Your task to perform on an android device: open app "Truecaller" (install if not already installed) Image 0: 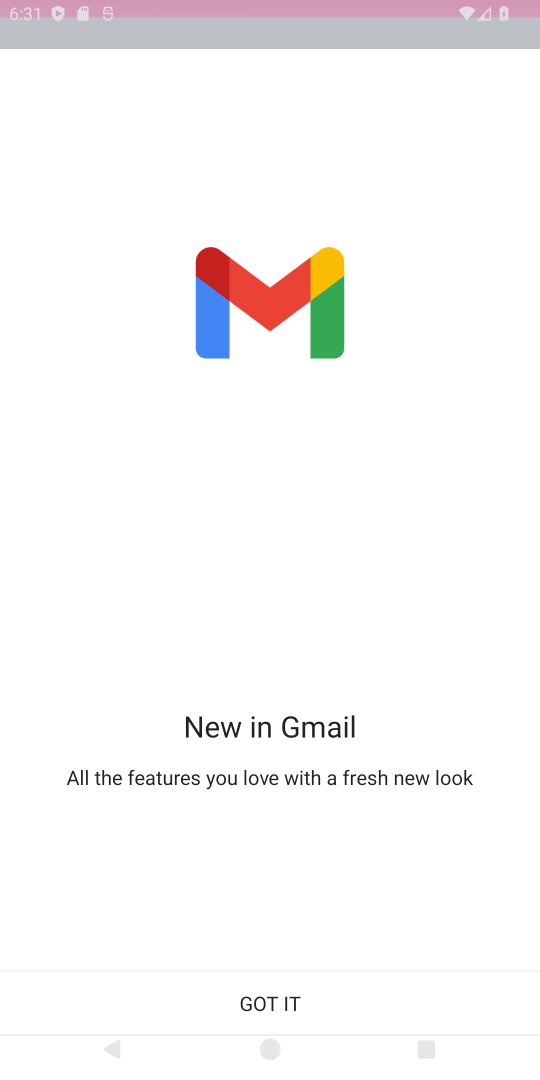
Step 0: press home button
Your task to perform on an android device: open app "Truecaller" (install if not already installed) Image 1: 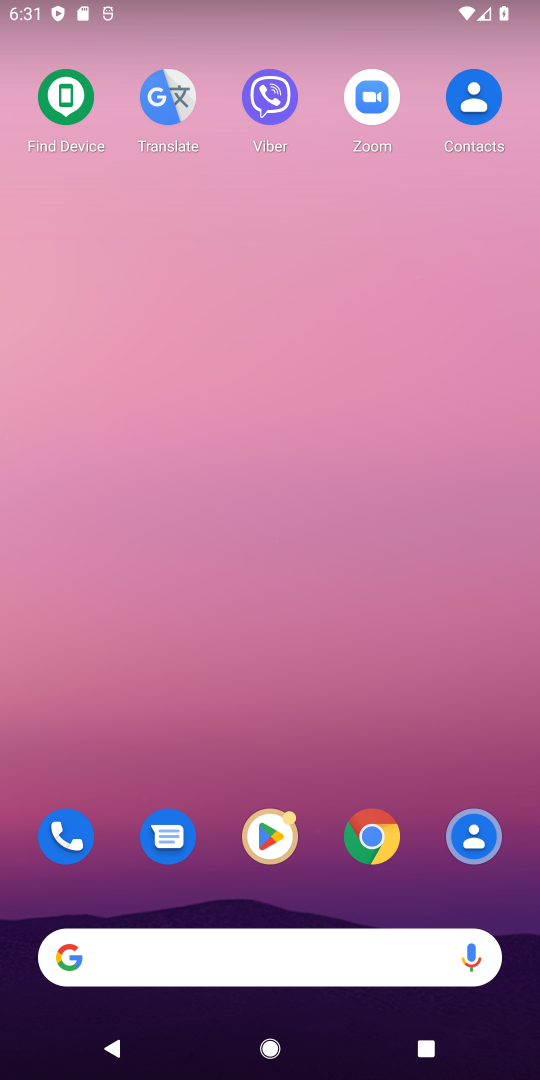
Step 1: press home button
Your task to perform on an android device: open app "Truecaller" (install if not already installed) Image 2: 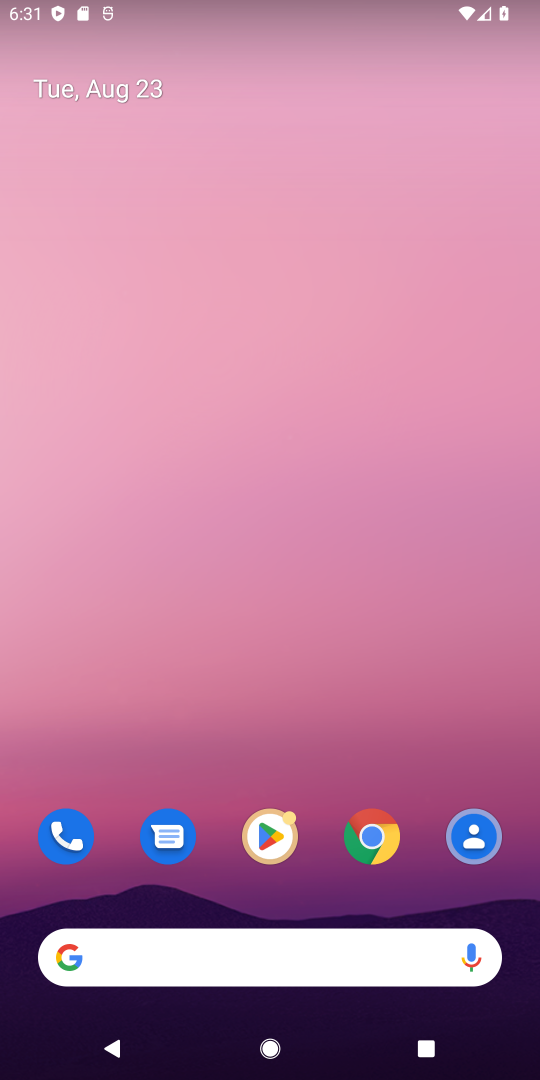
Step 2: click (267, 838)
Your task to perform on an android device: open app "Truecaller" (install if not already installed) Image 3: 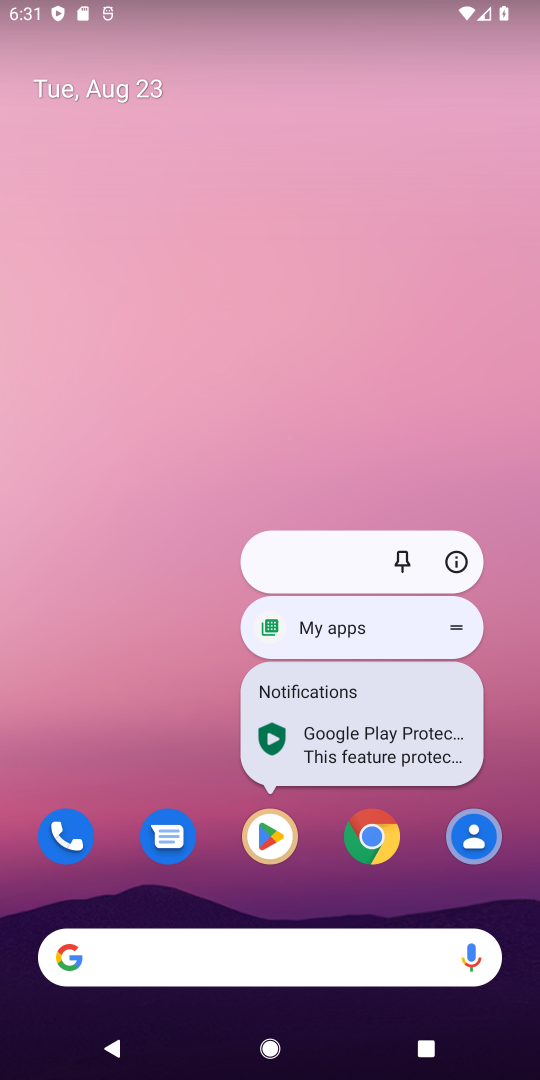
Step 3: click (267, 842)
Your task to perform on an android device: open app "Truecaller" (install if not already installed) Image 4: 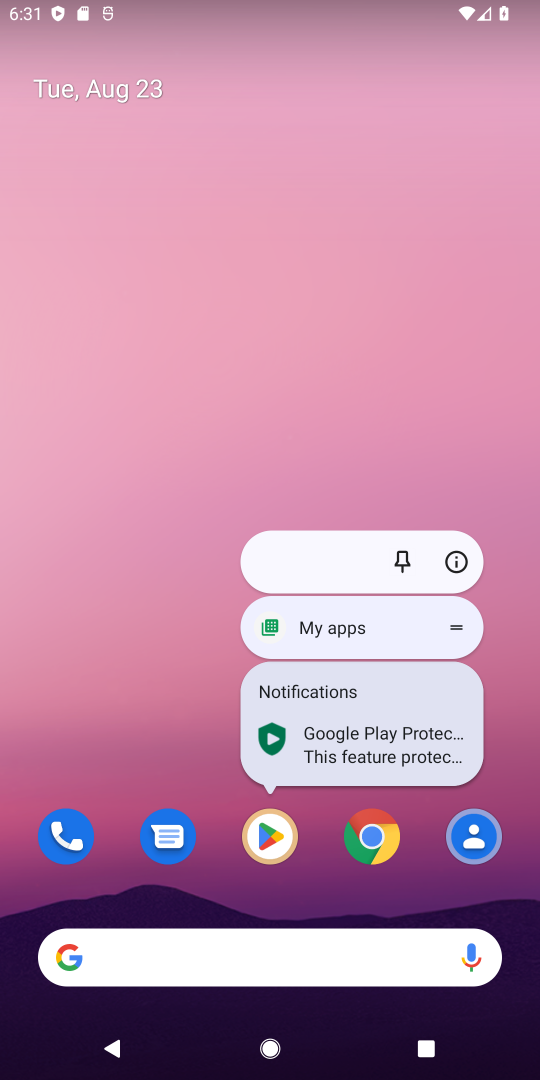
Step 4: click (254, 836)
Your task to perform on an android device: open app "Truecaller" (install if not already installed) Image 5: 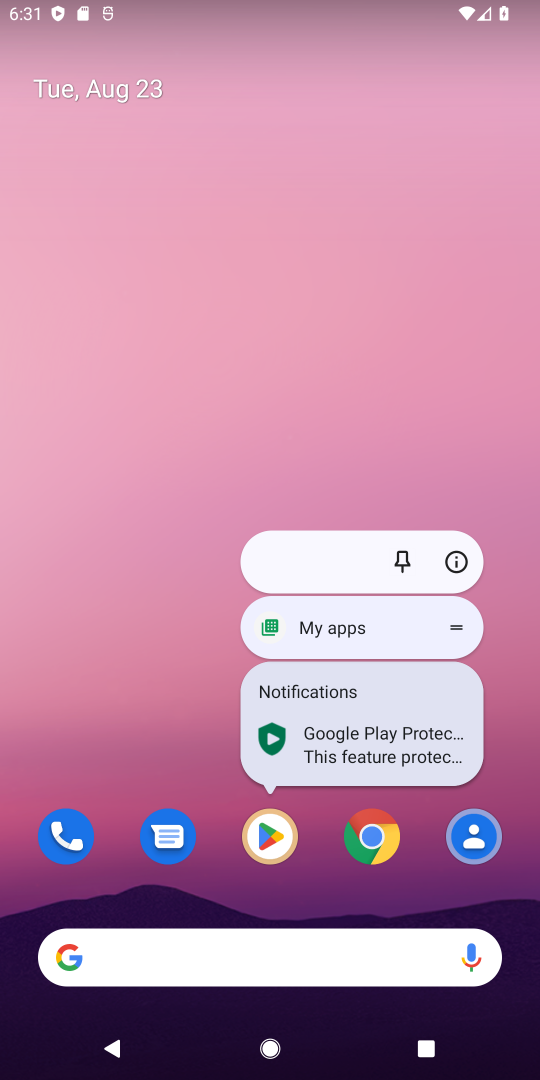
Step 5: click (273, 829)
Your task to perform on an android device: open app "Truecaller" (install if not already installed) Image 6: 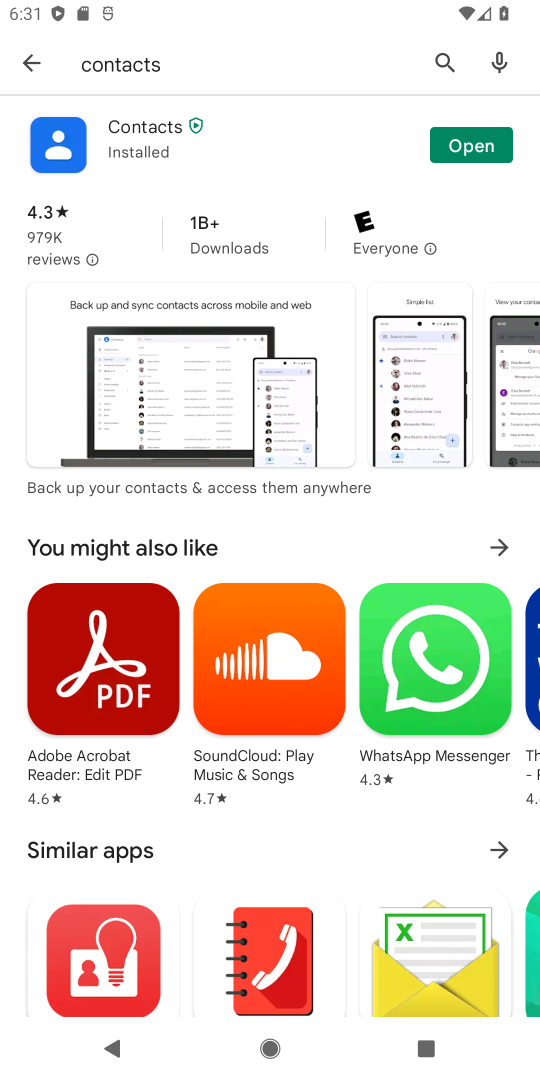
Step 6: click (440, 57)
Your task to perform on an android device: open app "Truecaller" (install if not already installed) Image 7: 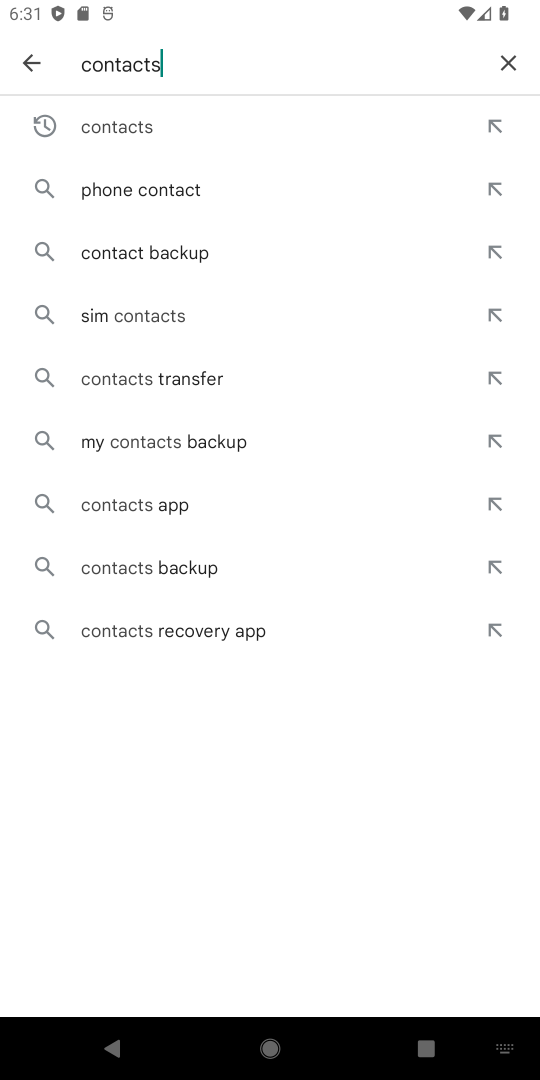
Step 7: click (505, 60)
Your task to perform on an android device: open app "Truecaller" (install if not already installed) Image 8: 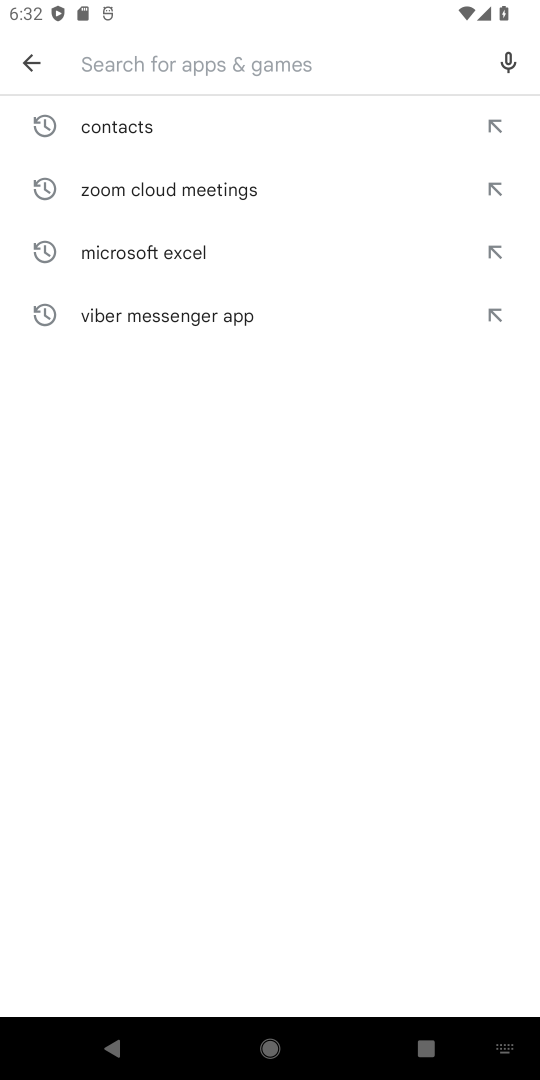
Step 8: type "Truecaller"
Your task to perform on an android device: open app "Truecaller" (install if not already installed) Image 9: 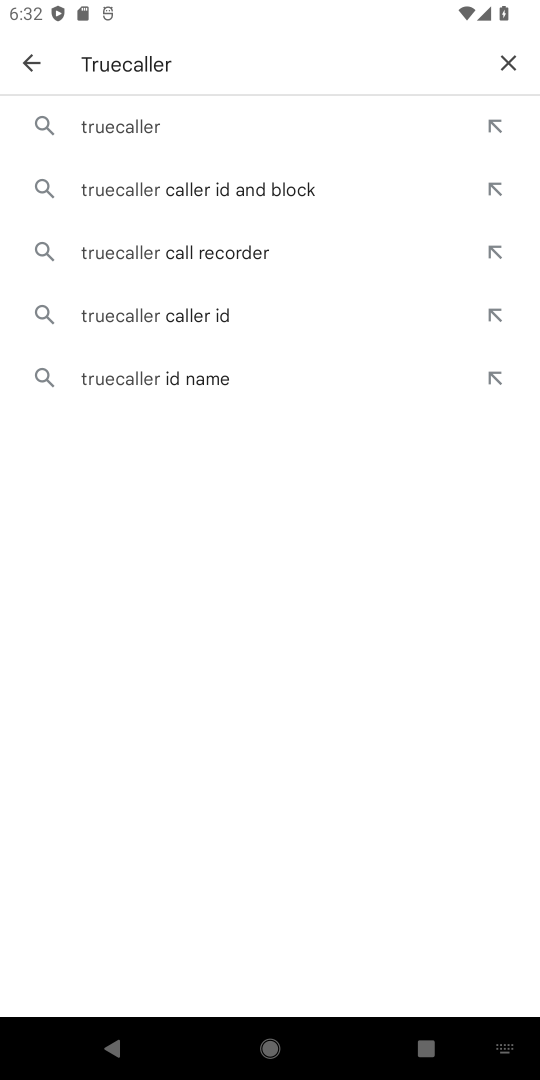
Step 9: click (123, 119)
Your task to perform on an android device: open app "Truecaller" (install if not already installed) Image 10: 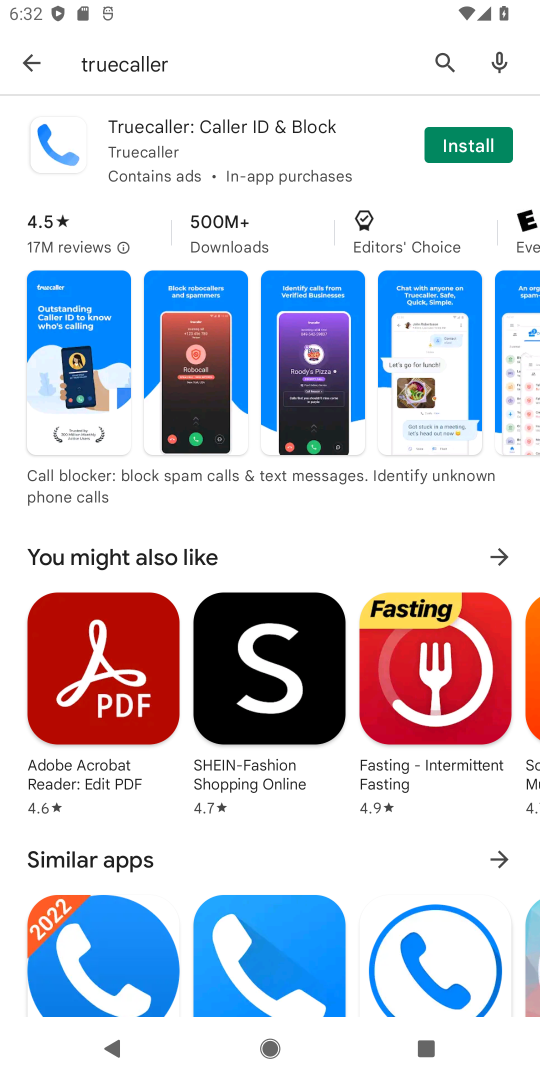
Step 10: click (496, 141)
Your task to perform on an android device: open app "Truecaller" (install if not already installed) Image 11: 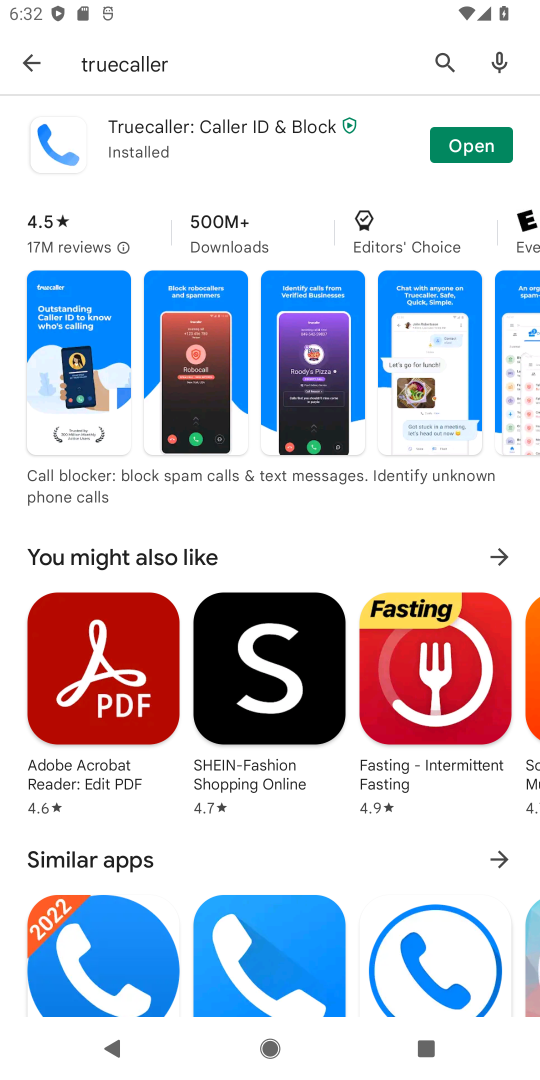
Step 11: click (475, 149)
Your task to perform on an android device: open app "Truecaller" (install if not already installed) Image 12: 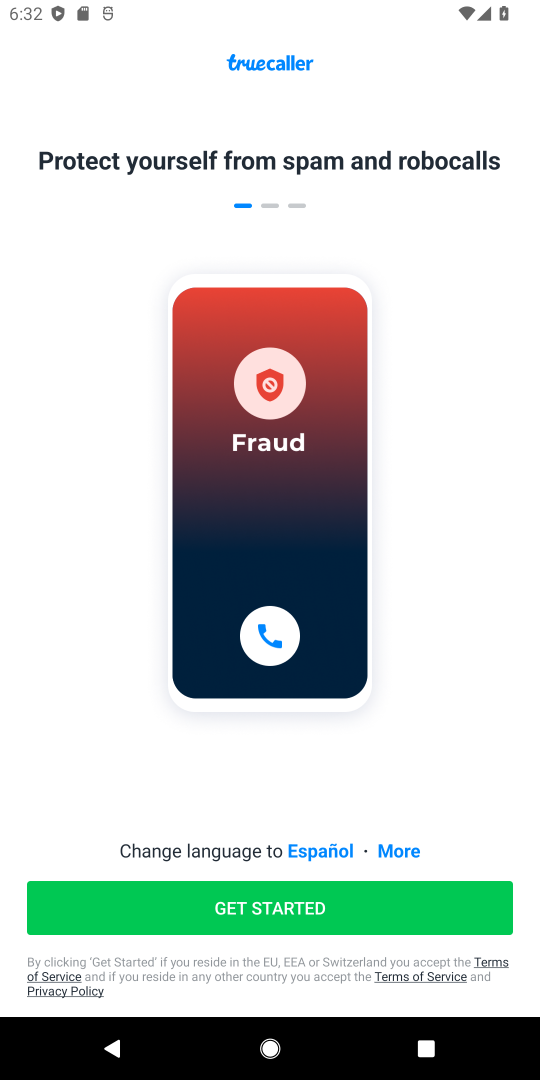
Step 12: task complete